Your task to perform on an android device: toggle improve location accuracy Image 0: 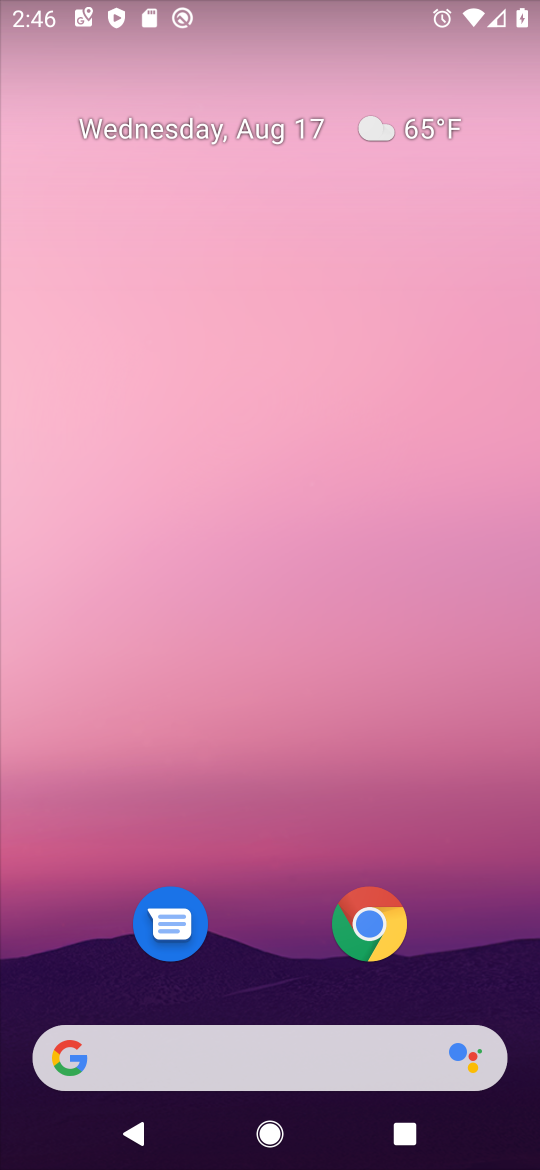
Step 0: drag from (242, 1067) to (304, 186)
Your task to perform on an android device: toggle improve location accuracy Image 1: 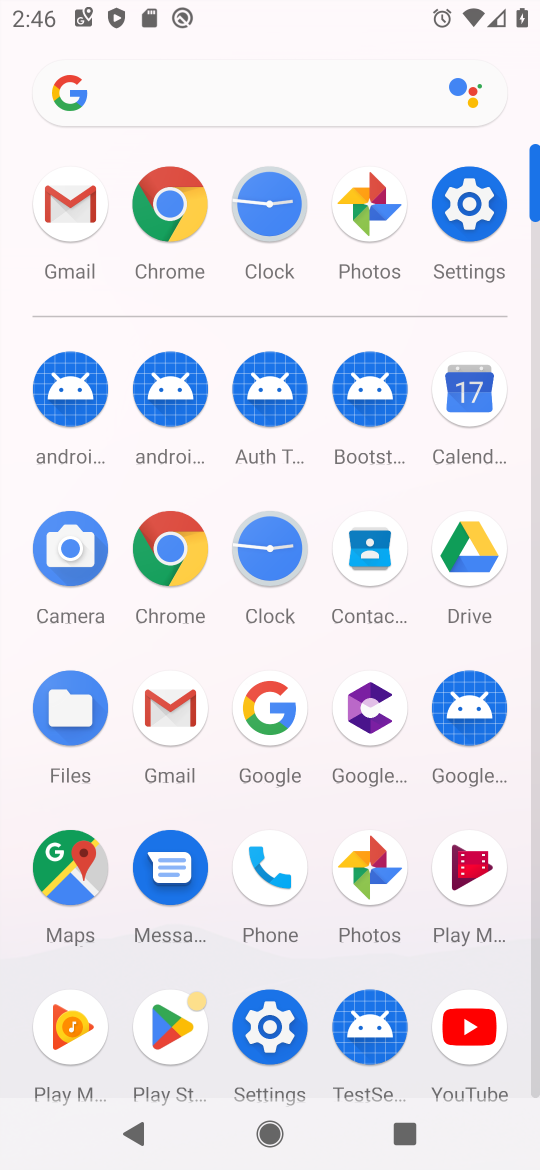
Step 1: click (272, 1030)
Your task to perform on an android device: toggle improve location accuracy Image 2: 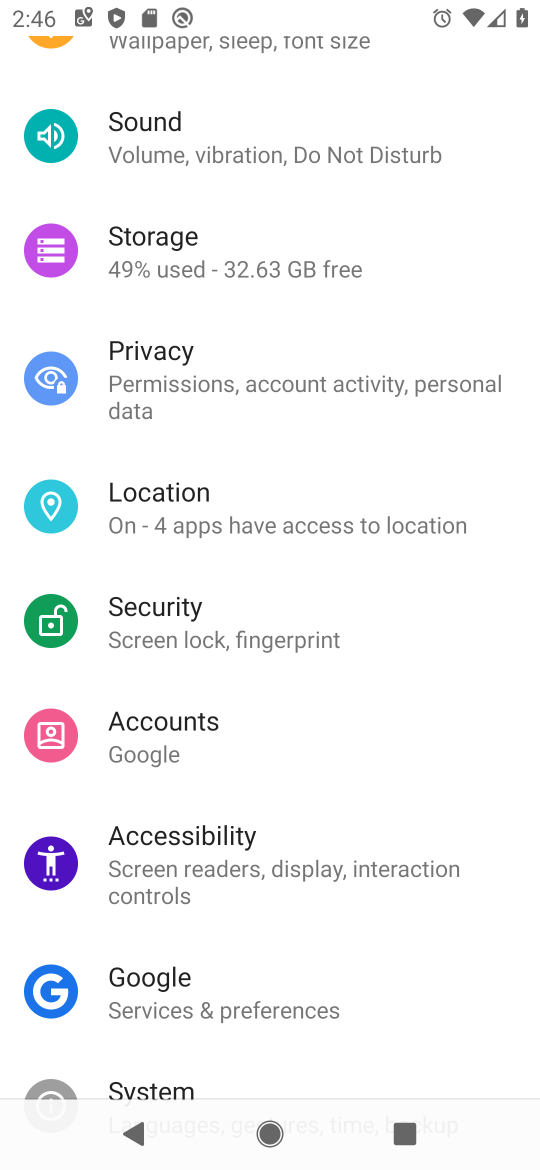
Step 2: click (160, 499)
Your task to perform on an android device: toggle improve location accuracy Image 3: 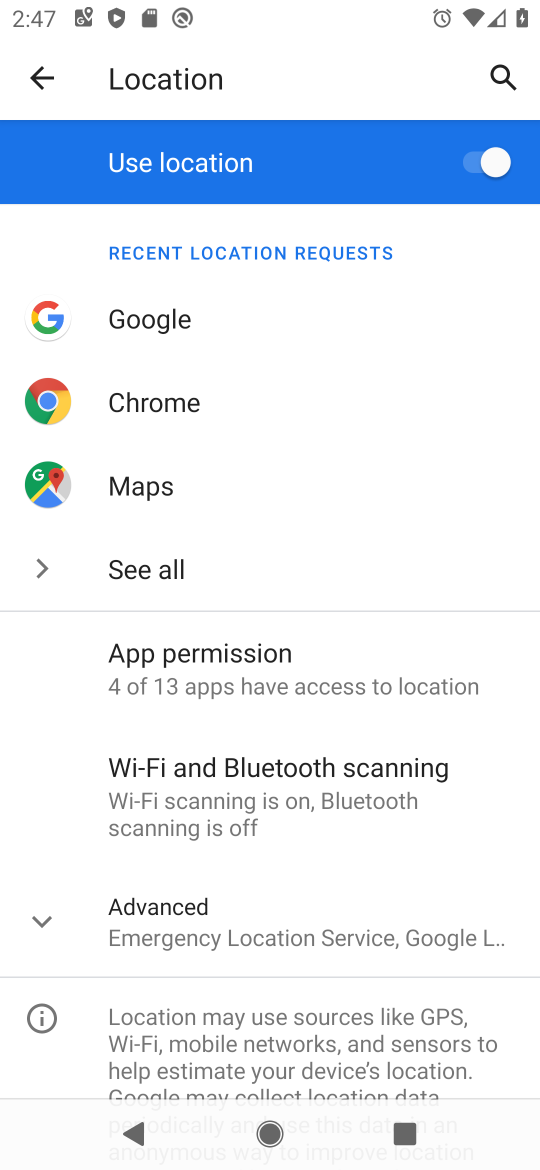
Step 3: click (209, 940)
Your task to perform on an android device: toggle improve location accuracy Image 4: 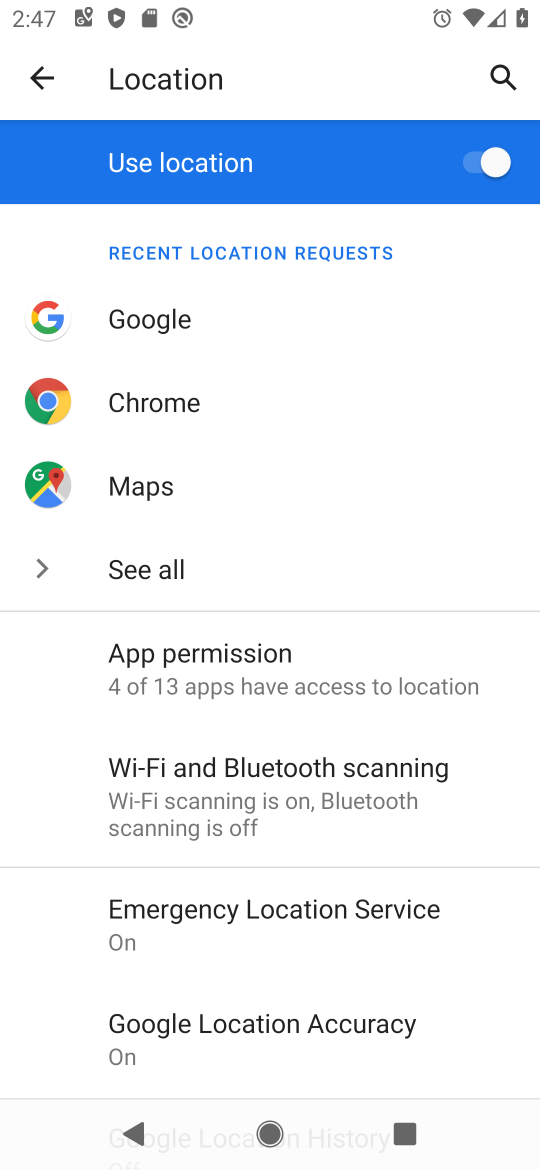
Step 4: drag from (221, 990) to (321, 713)
Your task to perform on an android device: toggle improve location accuracy Image 5: 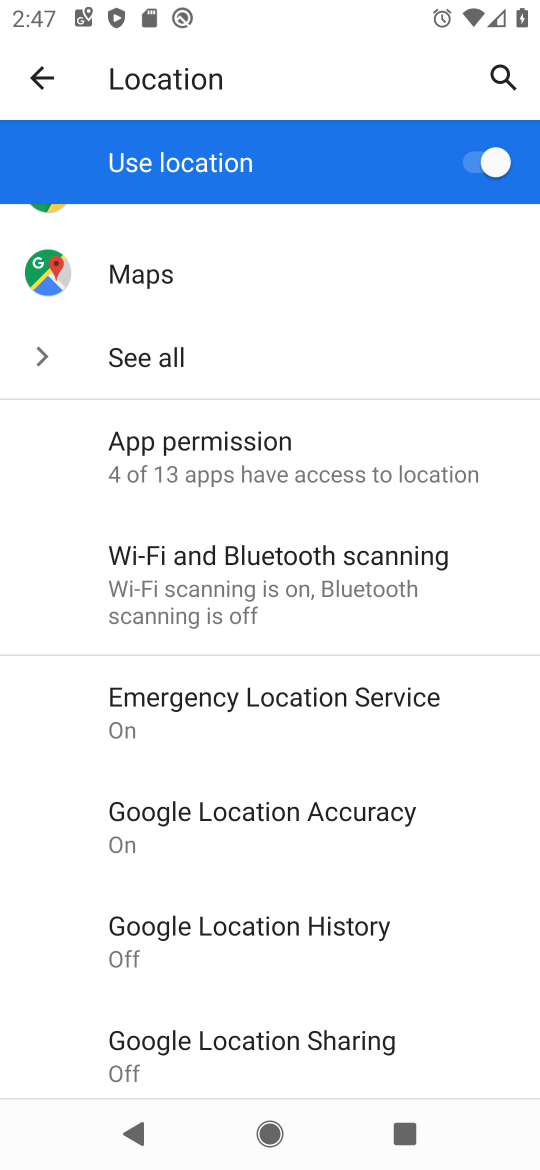
Step 5: click (257, 816)
Your task to perform on an android device: toggle improve location accuracy Image 6: 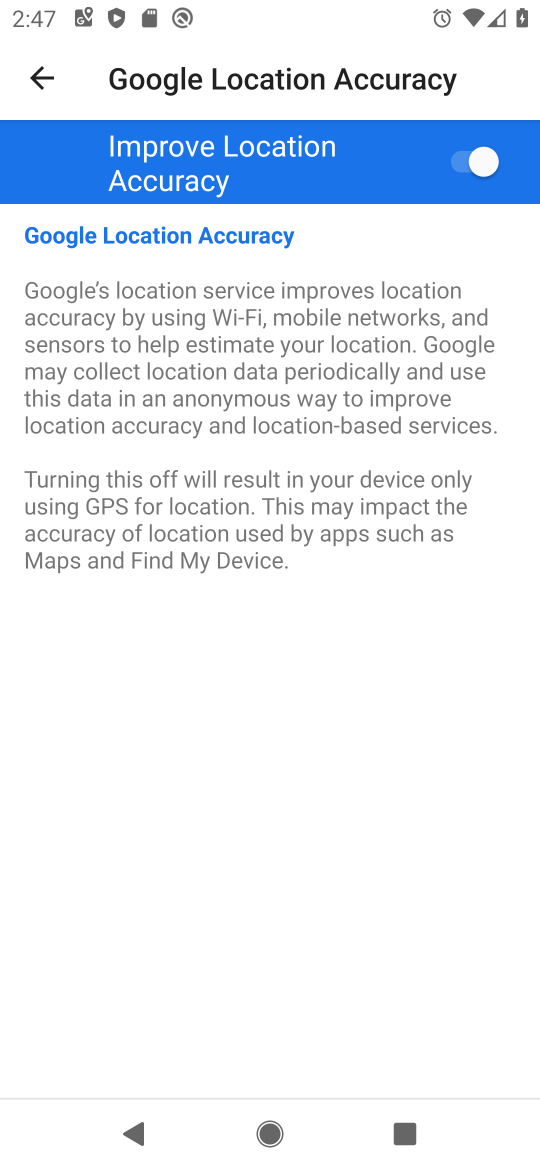
Step 6: click (454, 168)
Your task to perform on an android device: toggle improve location accuracy Image 7: 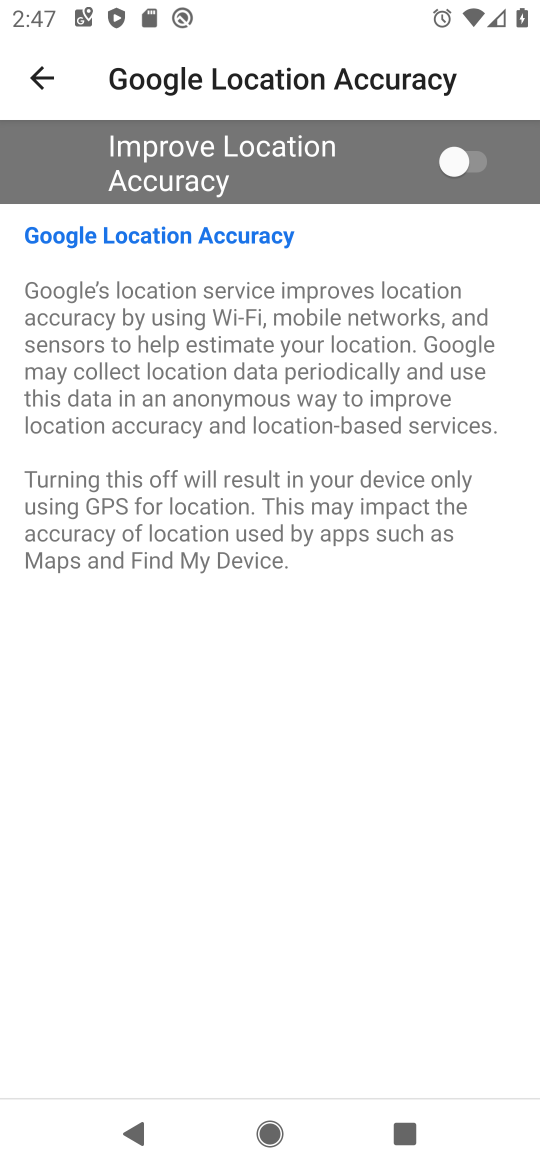
Step 7: task complete